Your task to perform on an android device: Go to Reddit.com Image 0: 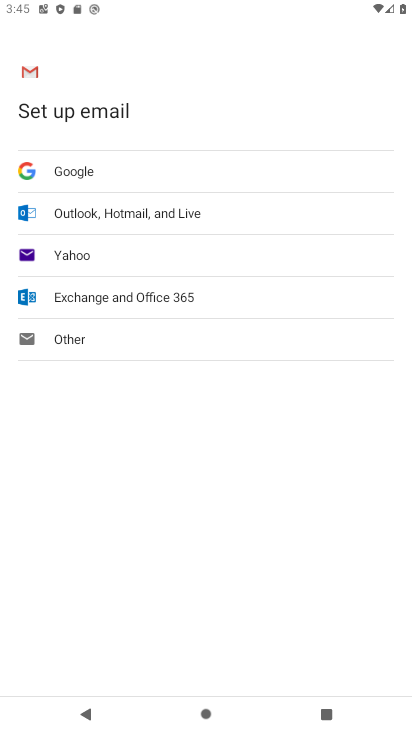
Step 0: press home button
Your task to perform on an android device: Go to Reddit.com Image 1: 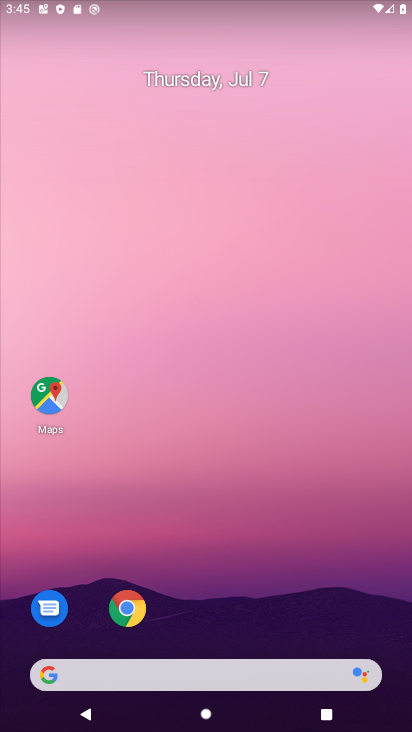
Step 1: drag from (271, 573) to (143, 82)
Your task to perform on an android device: Go to Reddit.com Image 2: 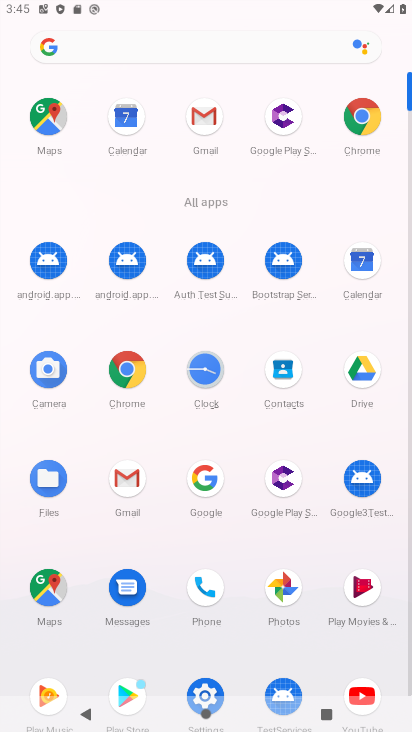
Step 2: click (366, 121)
Your task to perform on an android device: Go to Reddit.com Image 3: 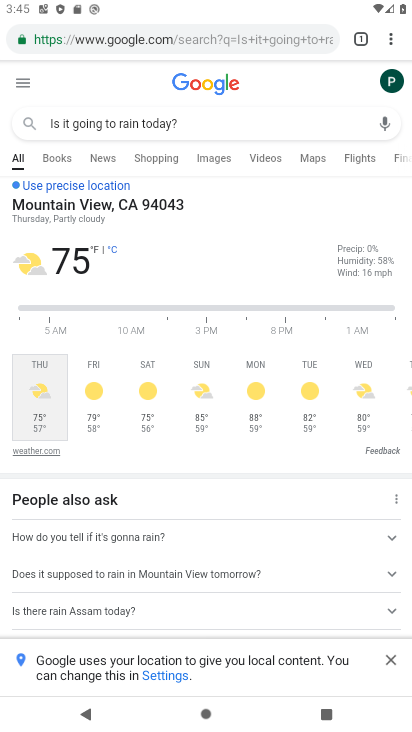
Step 3: click (236, 43)
Your task to perform on an android device: Go to Reddit.com Image 4: 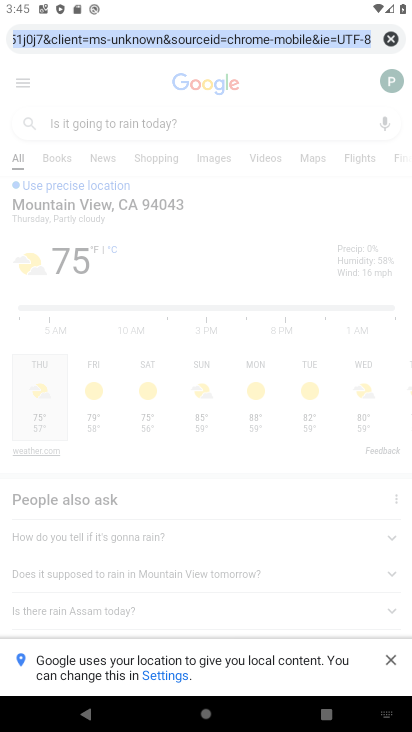
Step 4: type "reddit.com"
Your task to perform on an android device: Go to Reddit.com Image 5: 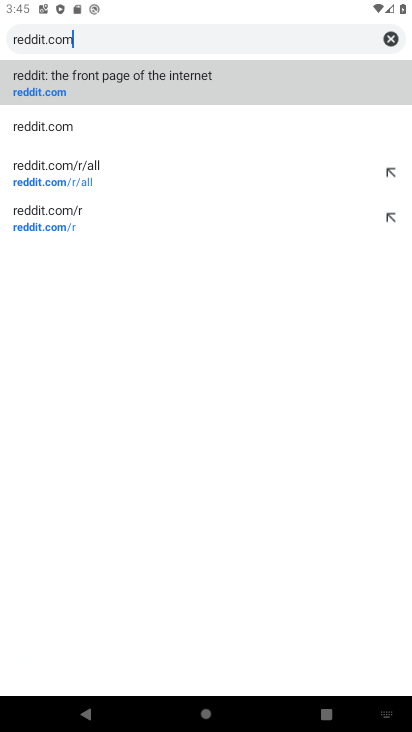
Step 5: click (179, 75)
Your task to perform on an android device: Go to Reddit.com Image 6: 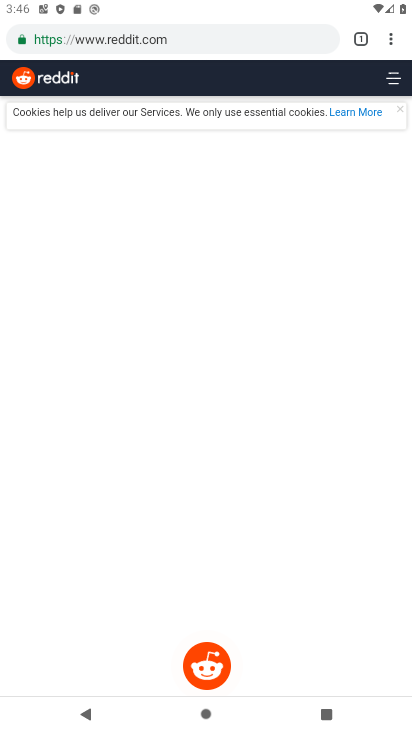
Step 6: task complete